Your task to perform on an android device: Add "sony triple a" to the cart on bestbuy.com Image 0: 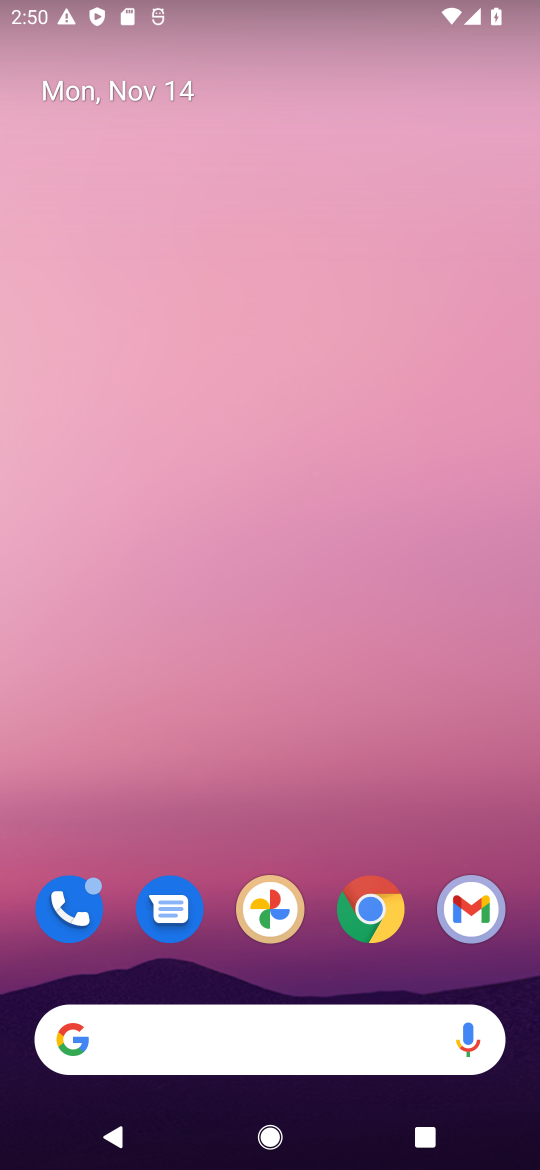
Step 0: drag from (317, 993) to (467, 184)
Your task to perform on an android device: Add "sony triple a" to the cart on bestbuy.com Image 1: 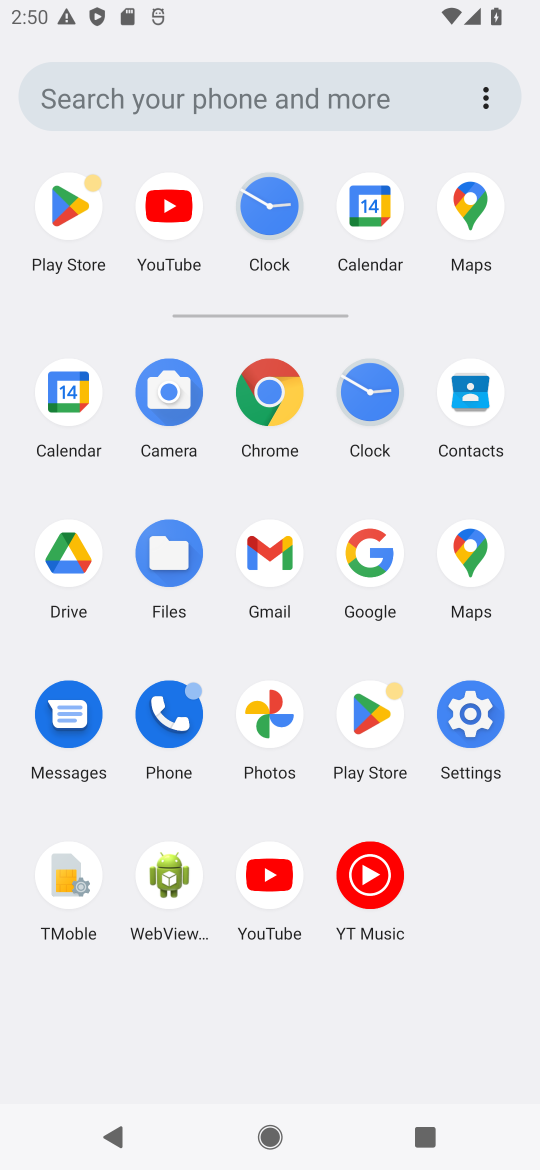
Step 1: click (264, 394)
Your task to perform on an android device: Add "sony triple a" to the cart on bestbuy.com Image 2: 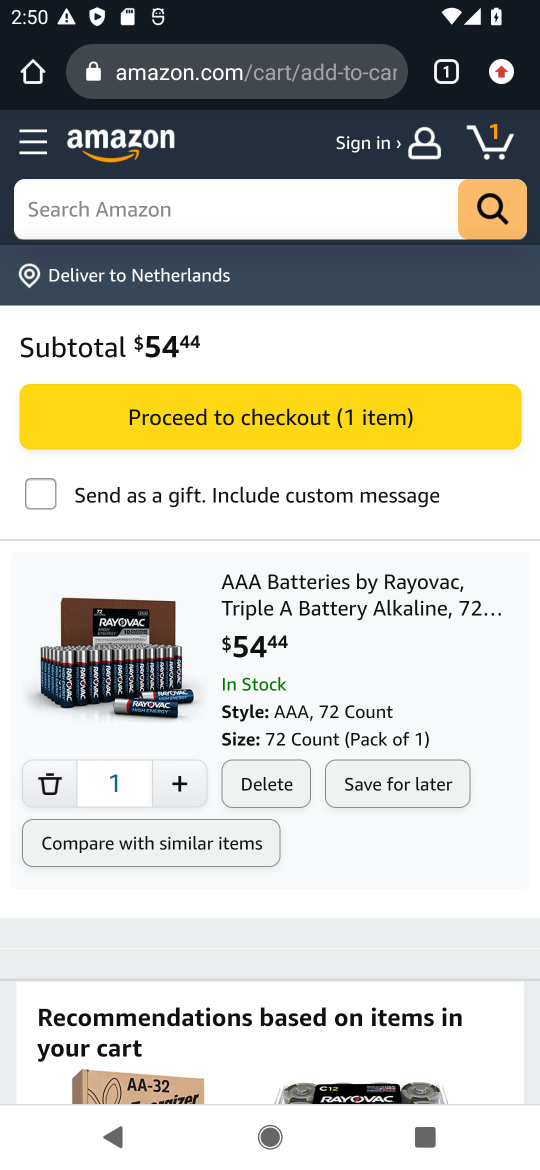
Step 2: click (267, 69)
Your task to perform on an android device: Add "sony triple a" to the cart on bestbuy.com Image 3: 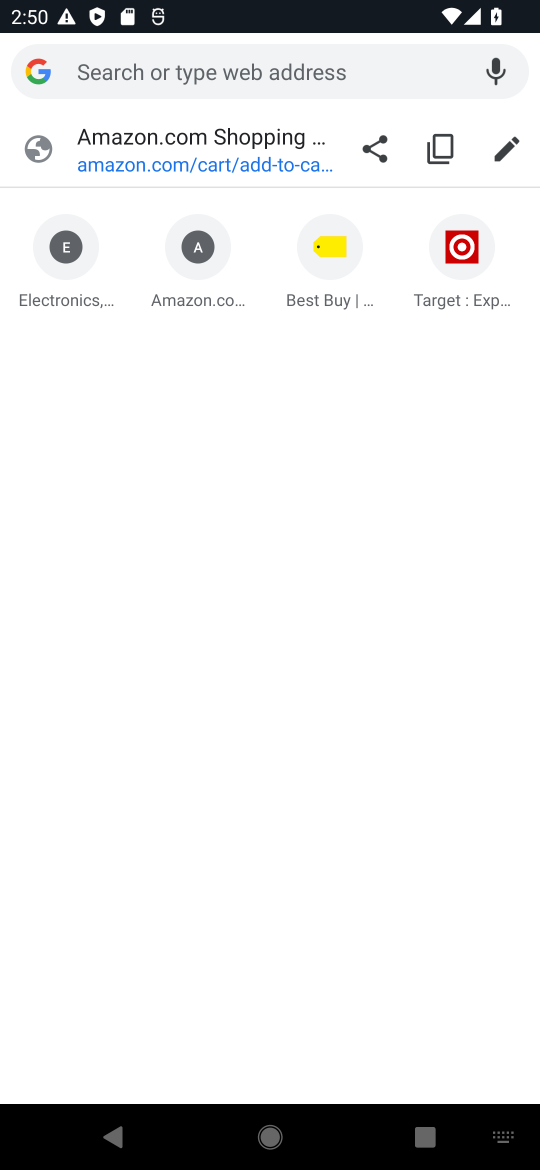
Step 3: type "bestbuy.com"
Your task to perform on an android device: Add "sony triple a" to the cart on bestbuy.com Image 4: 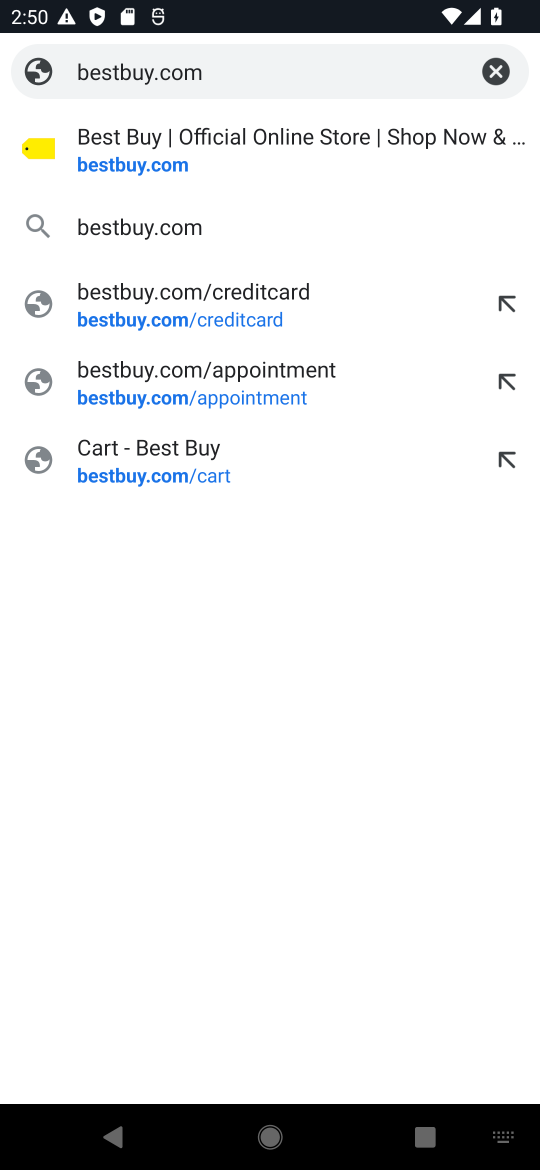
Step 4: press enter
Your task to perform on an android device: Add "sony triple a" to the cart on bestbuy.com Image 5: 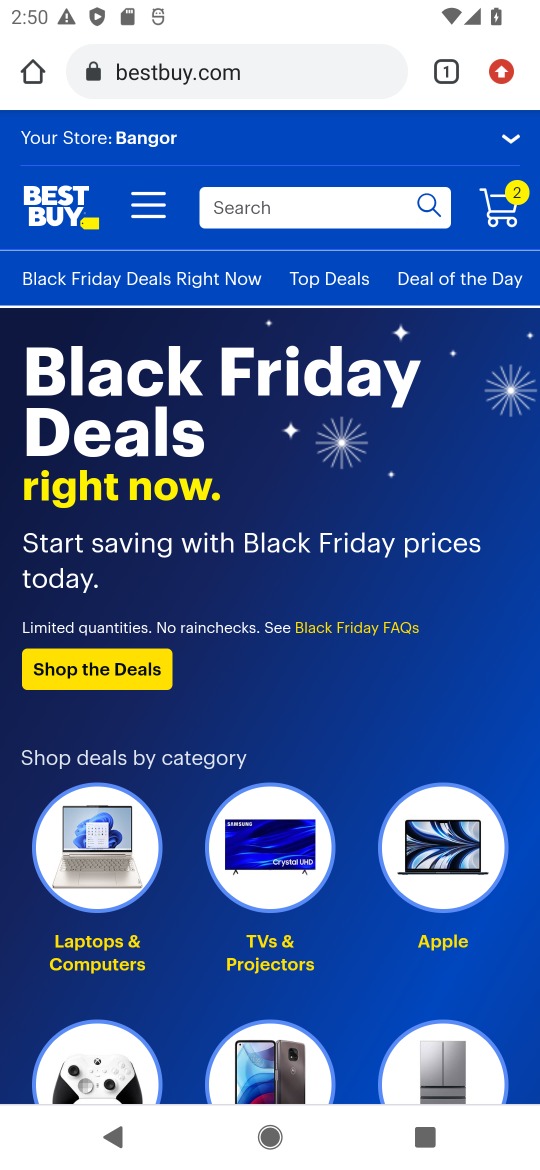
Step 5: click (317, 207)
Your task to perform on an android device: Add "sony triple a" to the cart on bestbuy.com Image 6: 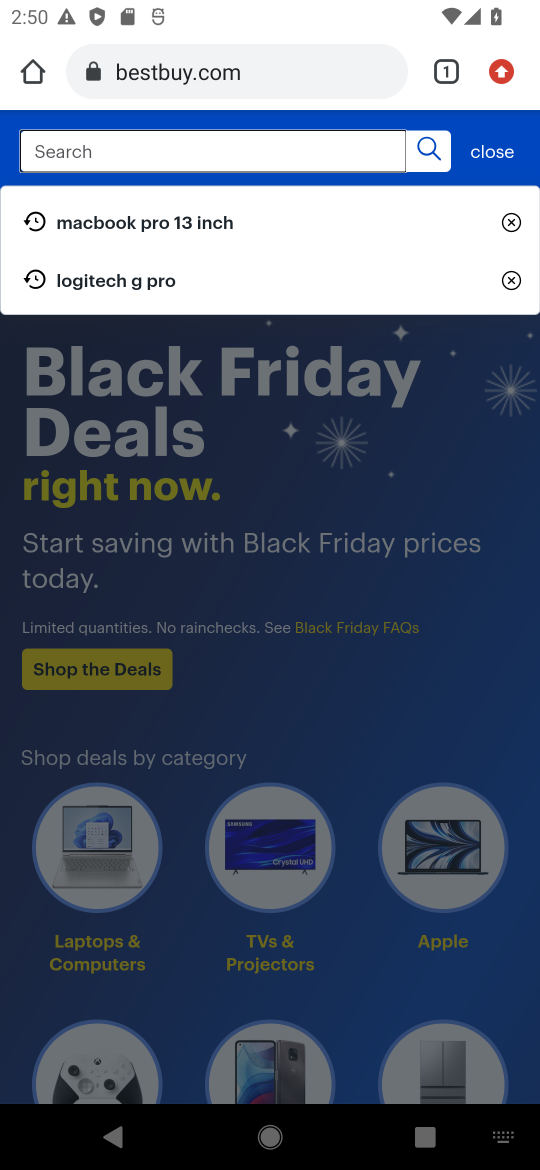
Step 6: type "sony triple a"
Your task to perform on an android device: Add "sony triple a" to the cart on bestbuy.com Image 7: 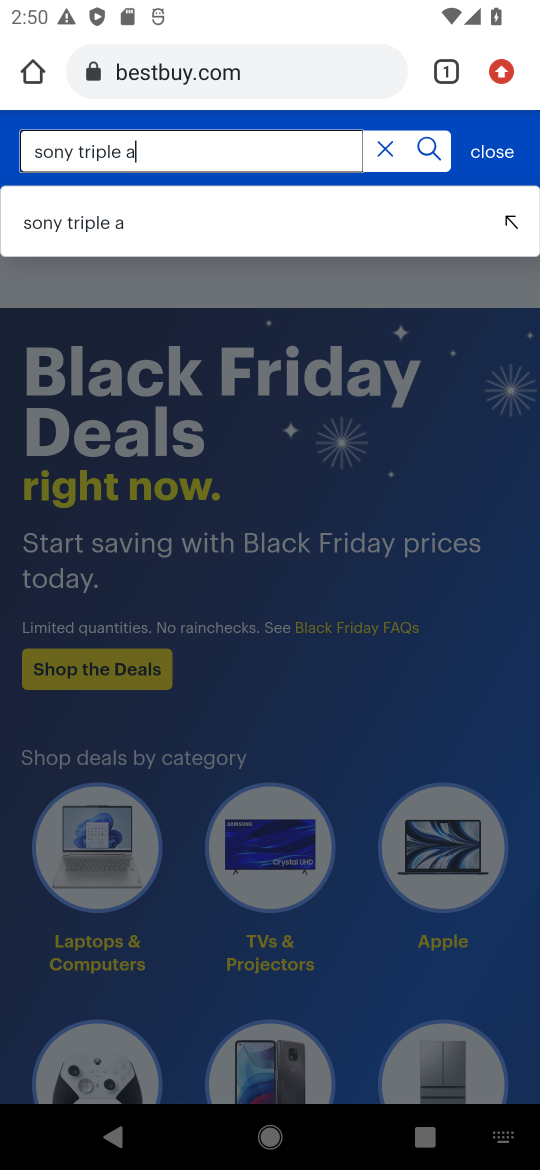
Step 7: press enter
Your task to perform on an android device: Add "sony triple a" to the cart on bestbuy.com Image 8: 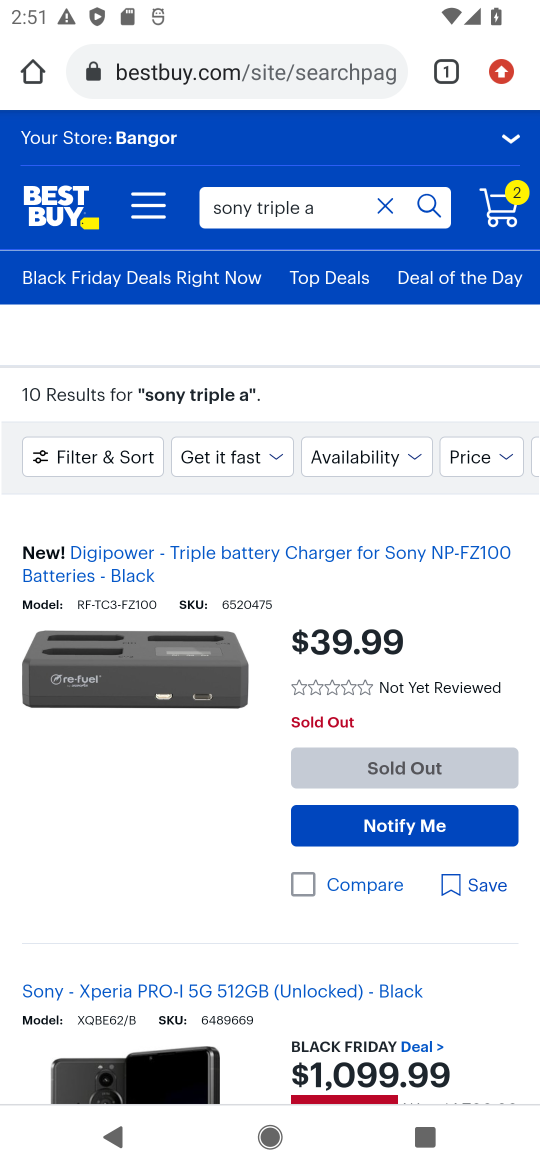
Step 8: drag from (211, 981) to (289, 567)
Your task to perform on an android device: Add "sony triple a" to the cart on bestbuy.com Image 9: 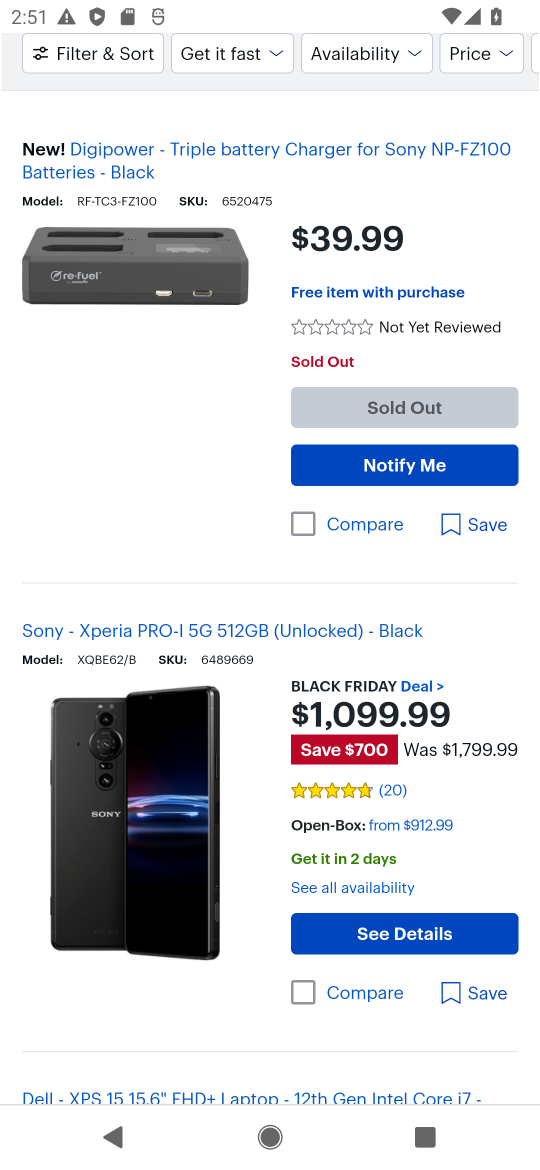
Step 9: drag from (242, 877) to (375, 254)
Your task to perform on an android device: Add "sony triple a" to the cart on bestbuy.com Image 10: 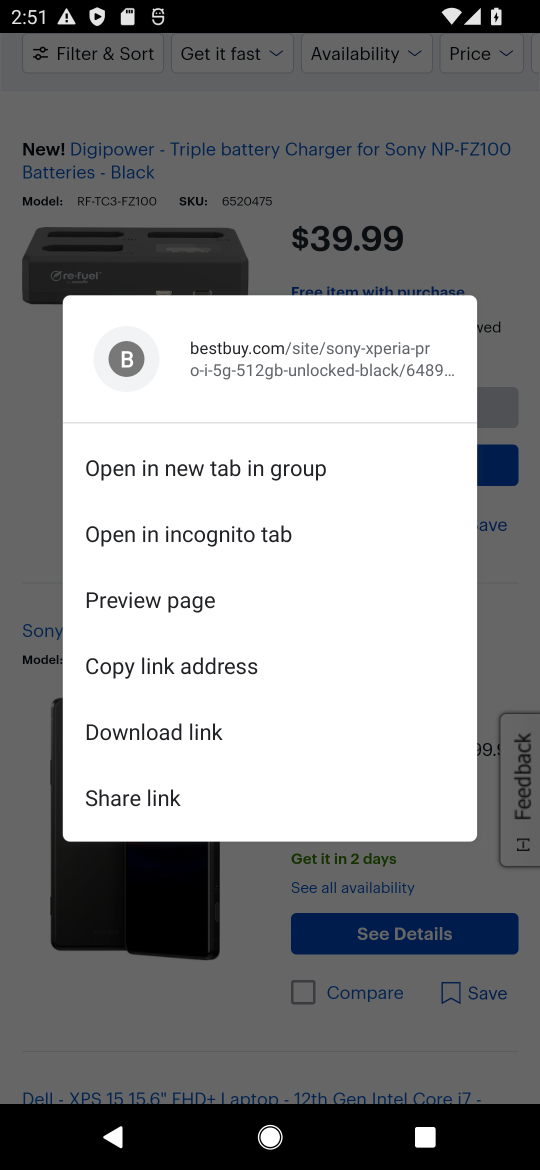
Step 10: click (327, 209)
Your task to perform on an android device: Add "sony triple a" to the cart on bestbuy.com Image 11: 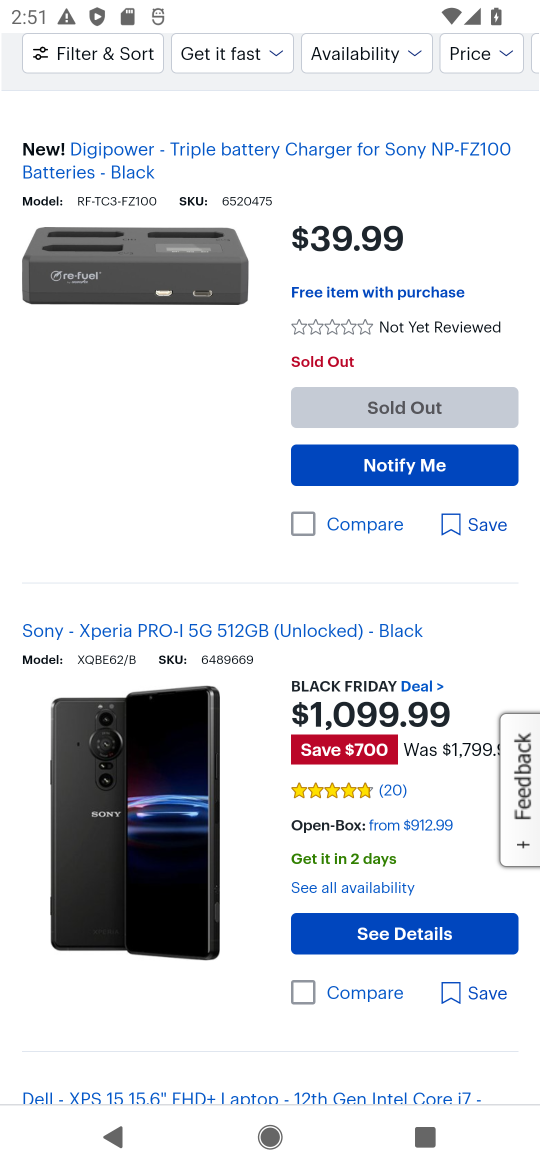
Step 11: task complete